Your task to perform on an android device: uninstall "Adobe Express: Graphic Design" Image 0: 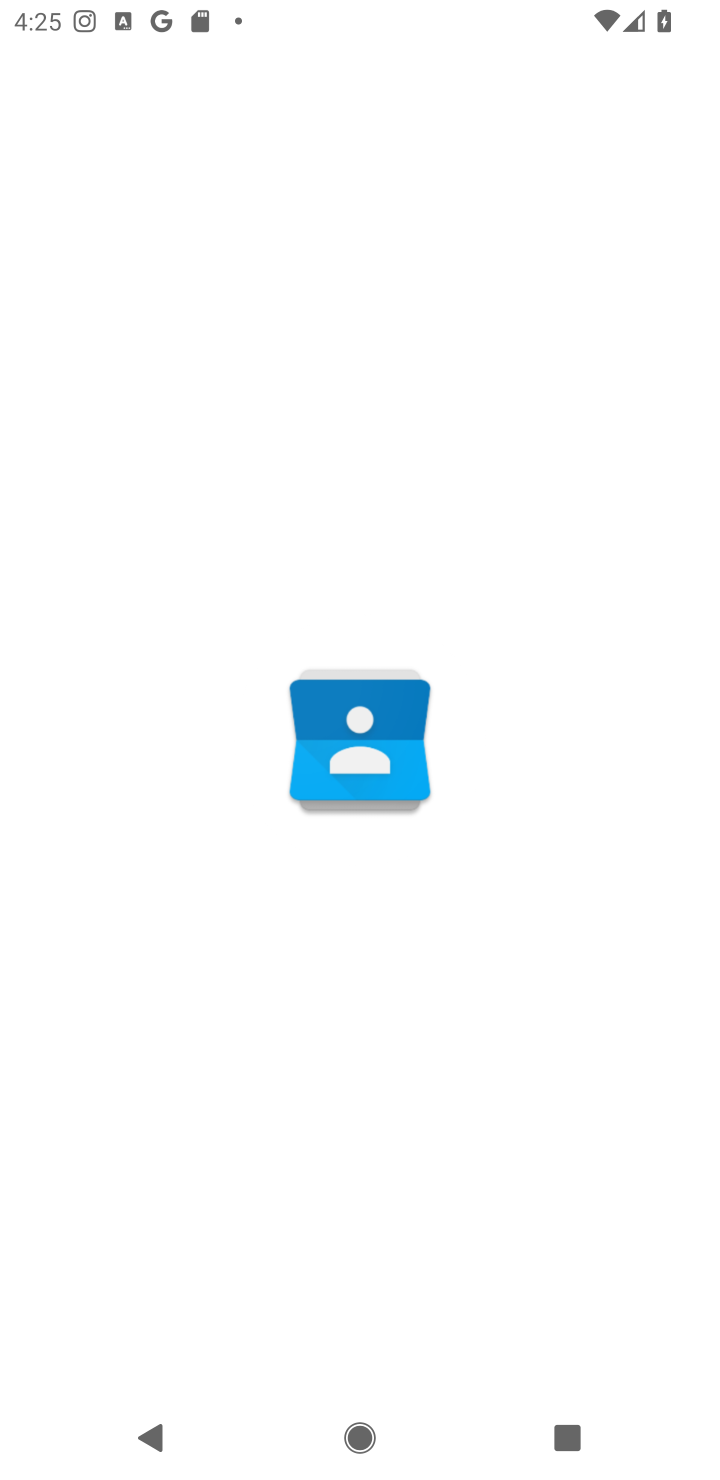
Step 0: press home button
Your task to perform on an android device: uninstall "Adobe Express: Graphic Design" Image 1: 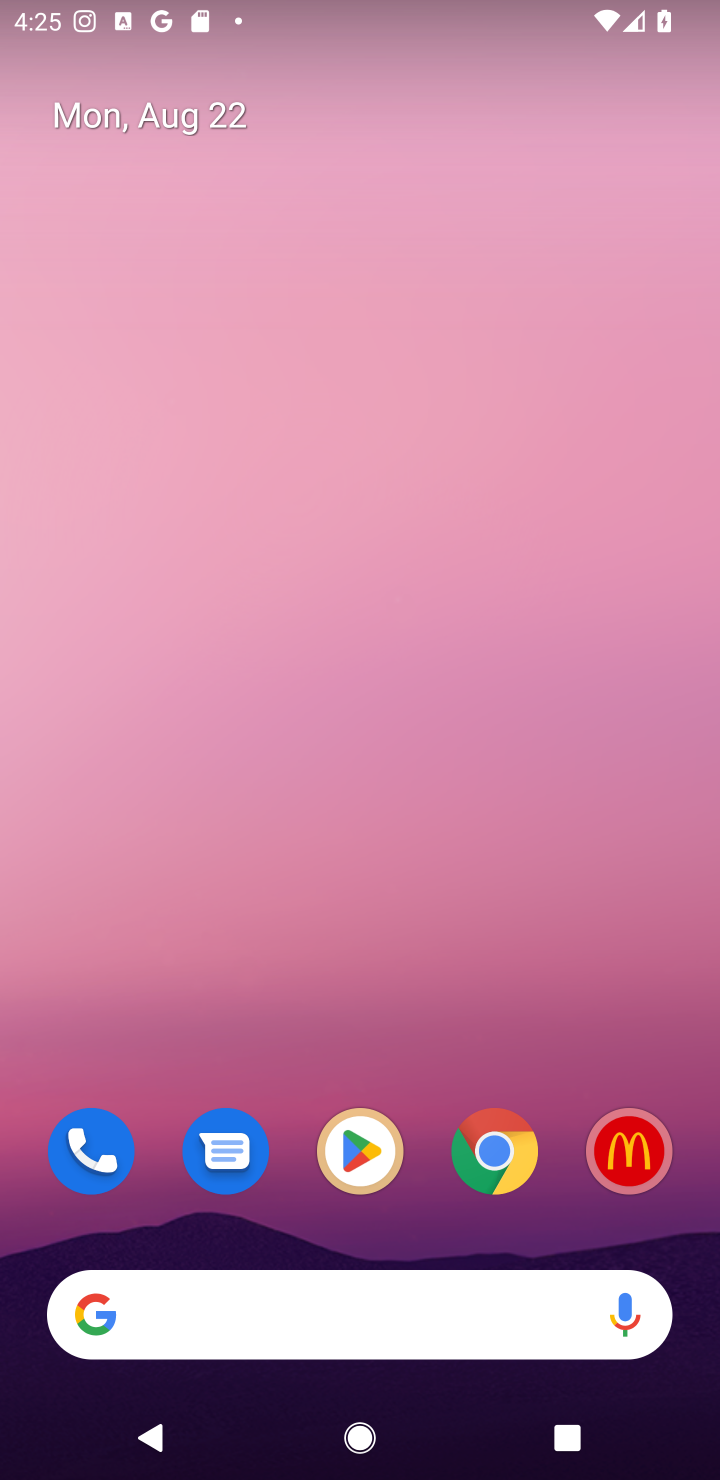
Step 1: click (348, 1160)
Your task to perform on an android device: uninstall "Adobe Express: Graphic Design" Image 2: 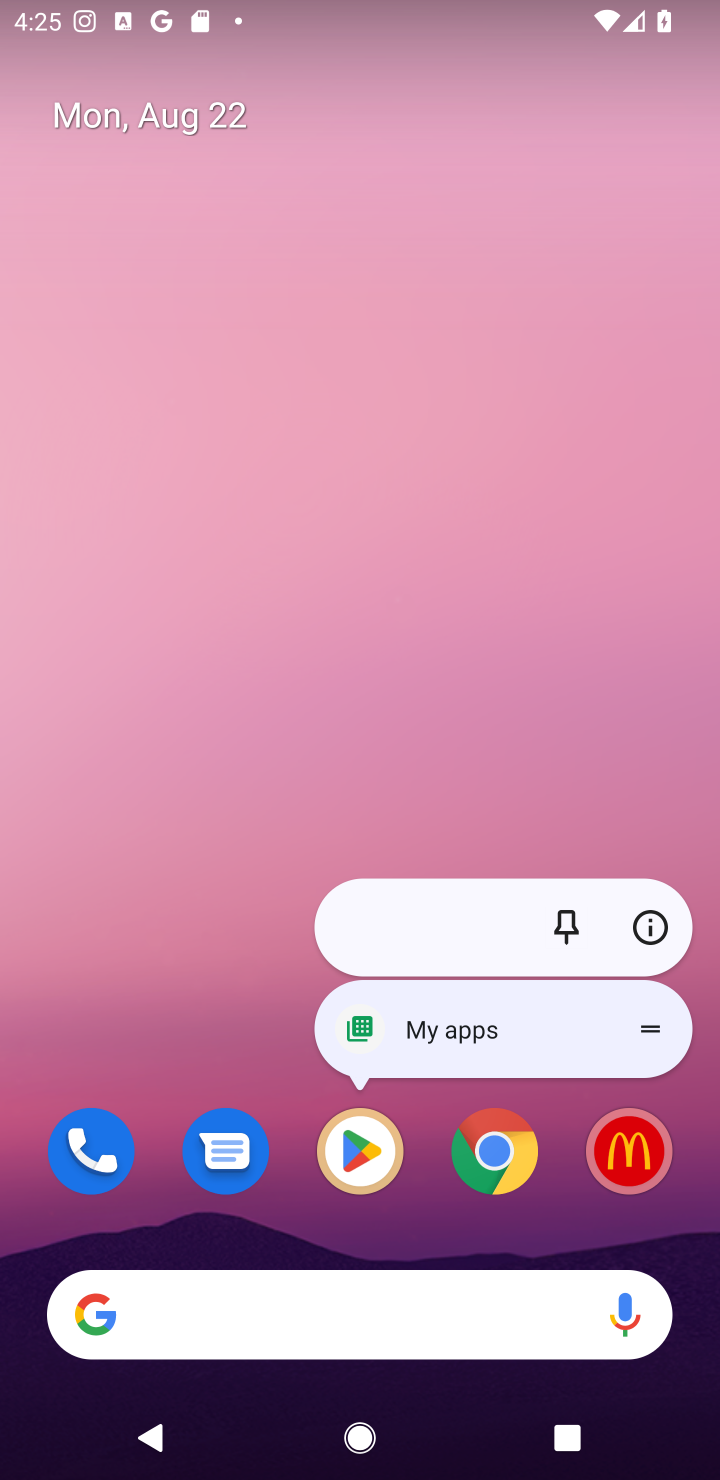
Step 2: click (344, 1158)
Your task to perform on an android device: uninstall "Adobe Express: Graphic Design" Image 3: 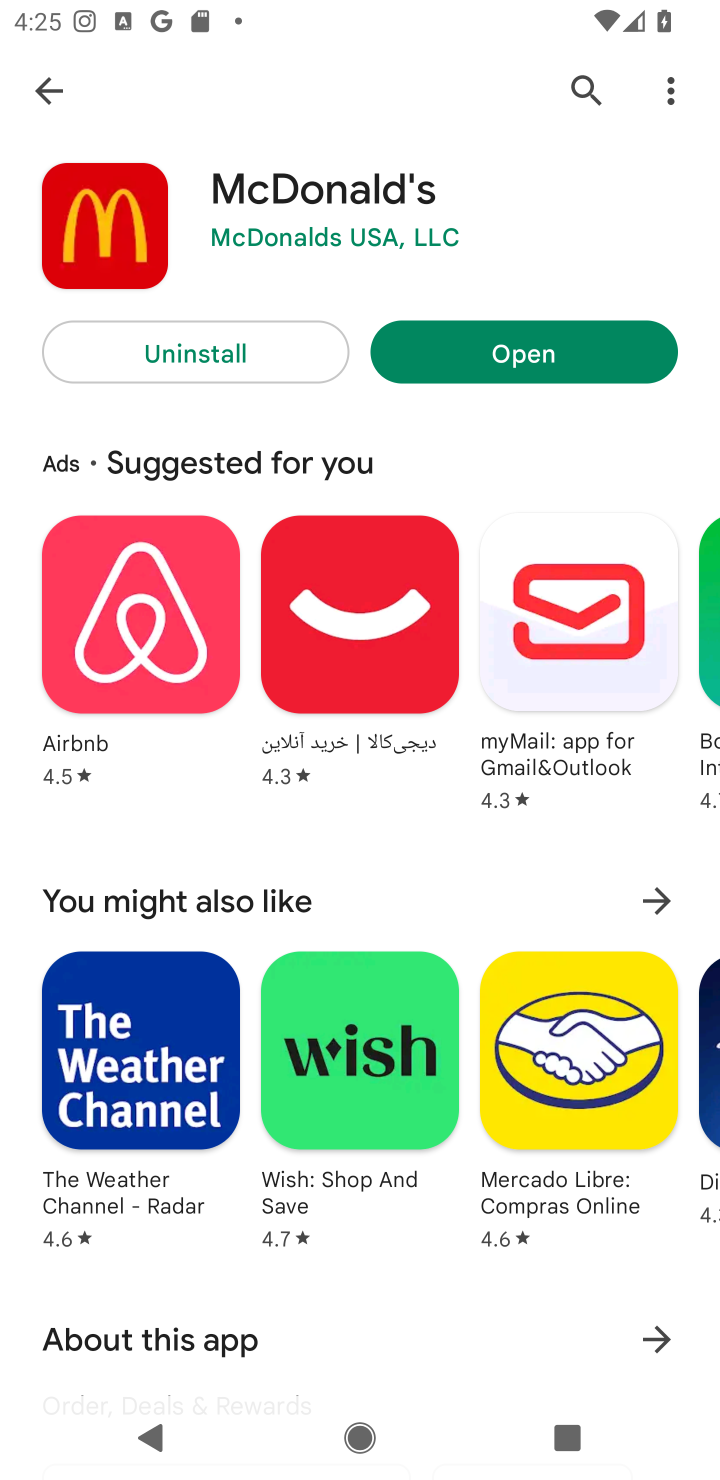
Step 3: click (580, 86)
Your task to perform on an android device: uninstall "Adobe Express: Graphic Design" Image 4: 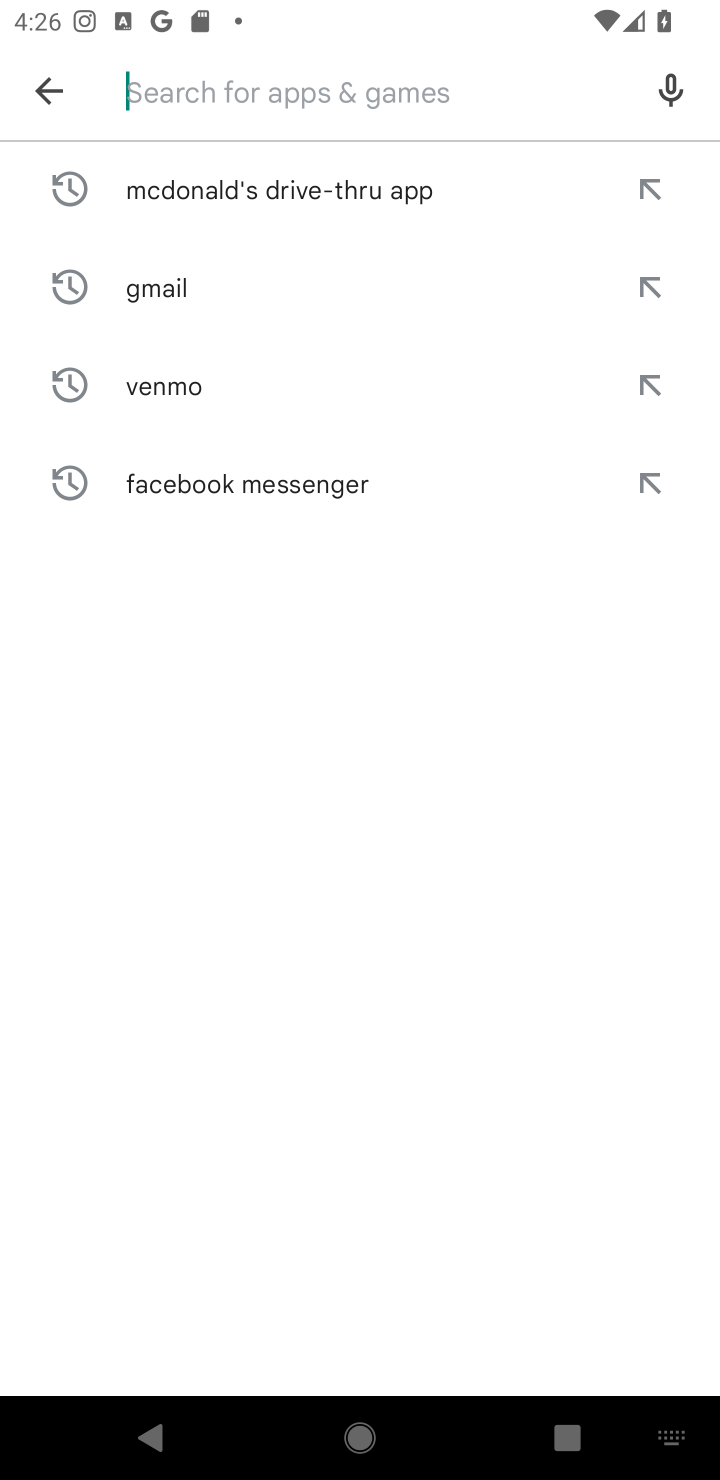
Step 4: type "Adobe Express: Graphic Design"
Your task to perform on an android device: uninstall "Adobe Express: Graphic Design" Image 5: 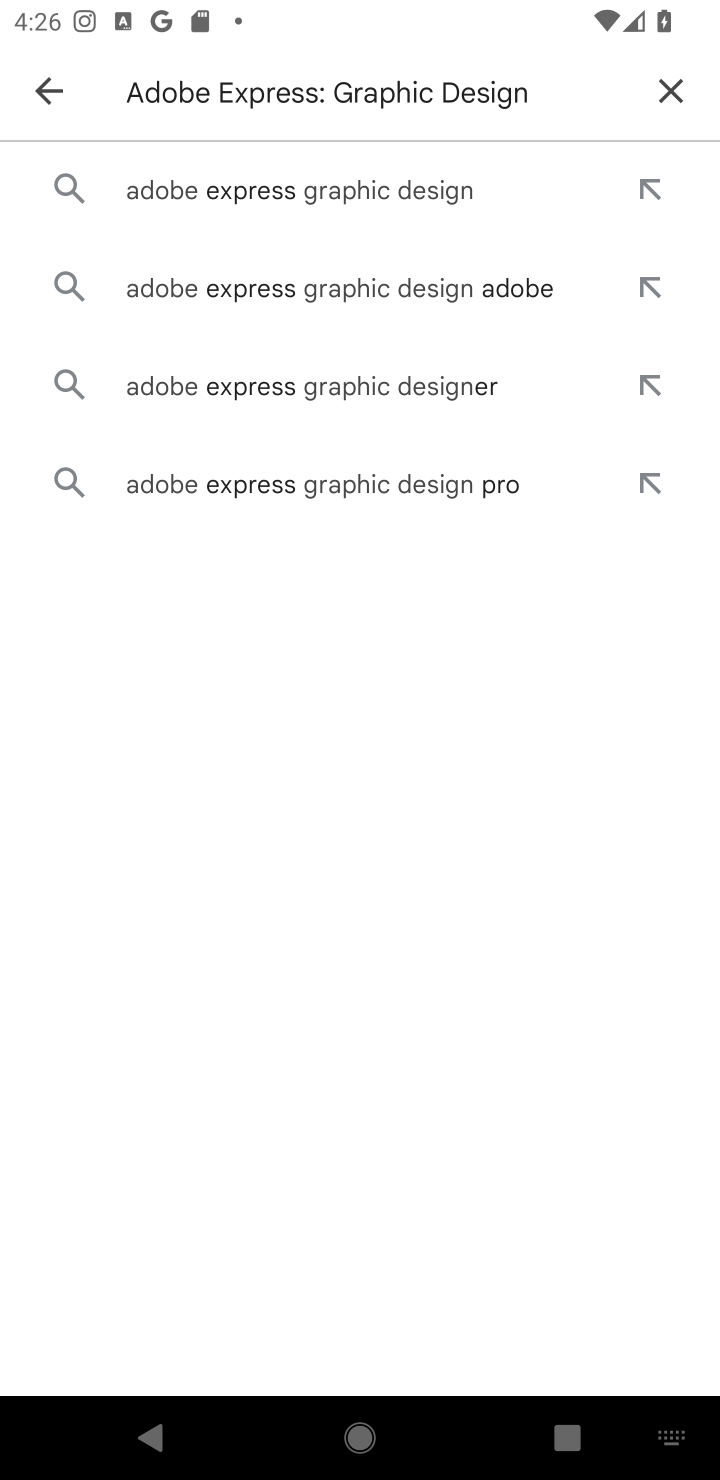
Step 5: click (442, 189)
Your task to perform on an android device: uninstall "Adobe Express: Graphic Design" Image 6: 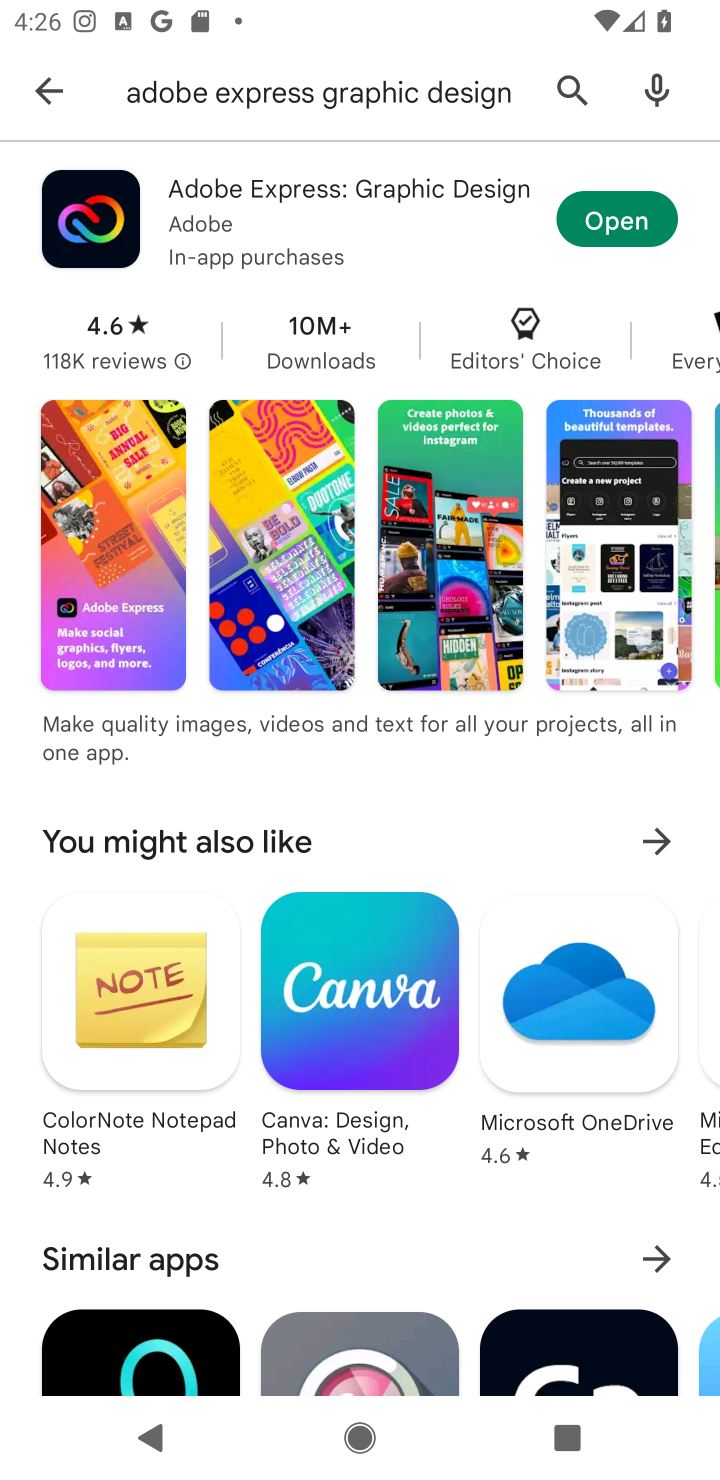
Step 6: click (185, 203)
Your task to perform on an android device: uninstall "Adobe Express: Graphic Design" Image 7: 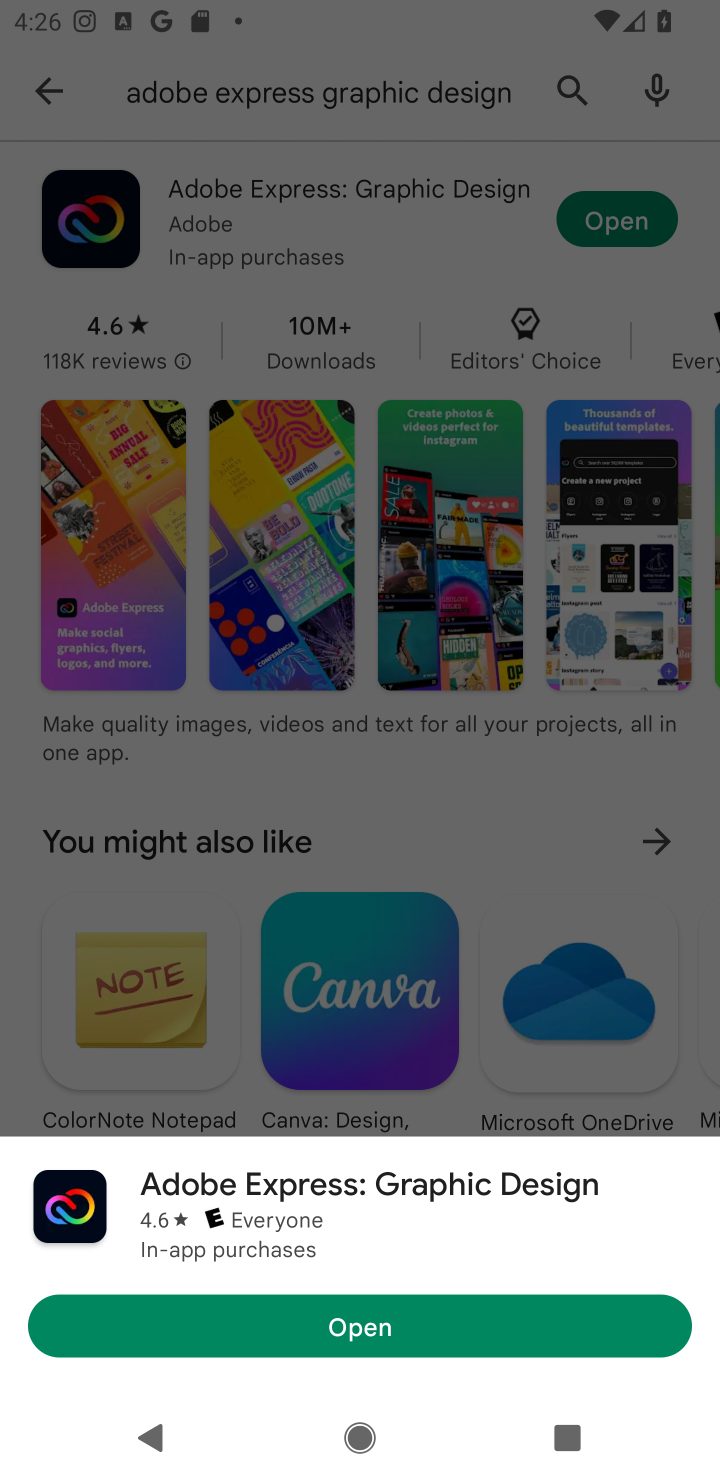
Step 7: click (224, 172)
Your task to perform on an android device: uninstall "Adobe Express: Graphic Design" Image 8: 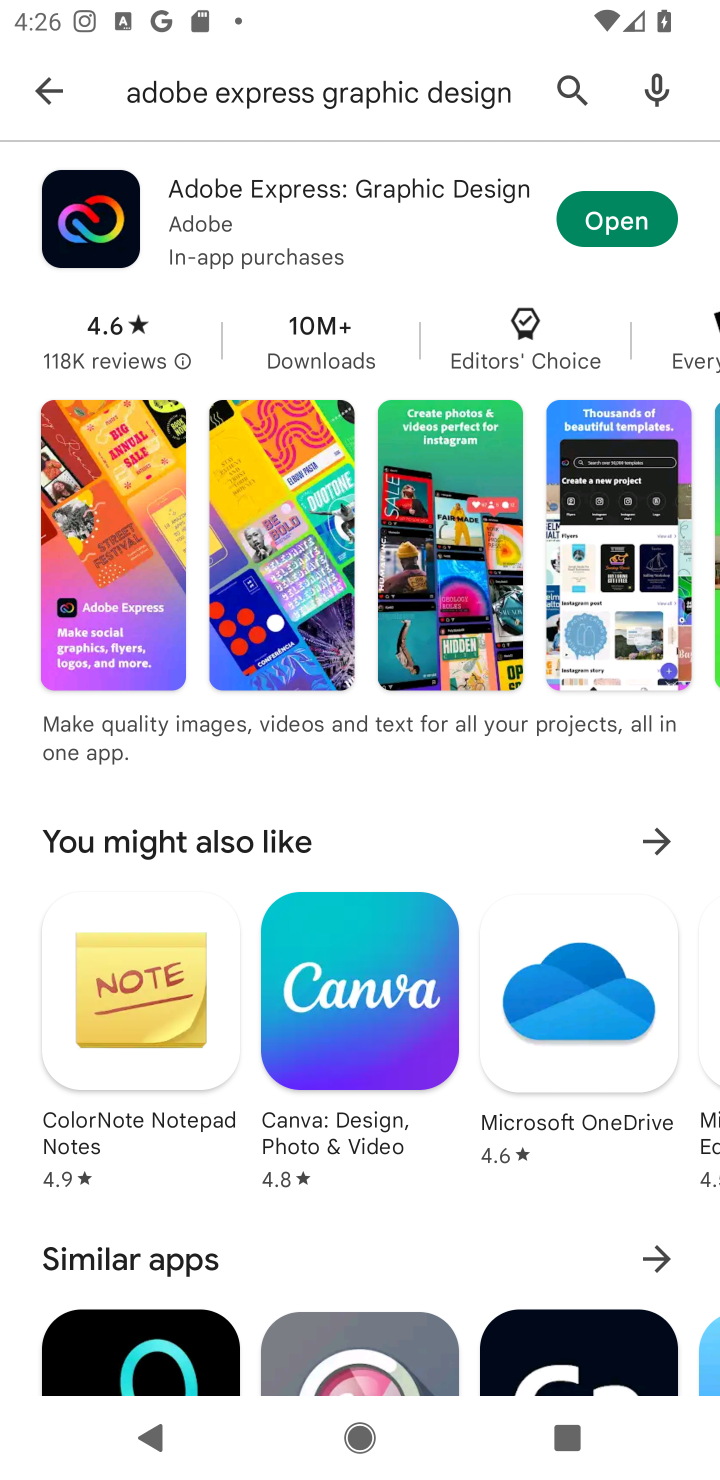
Step 8: click (208, 213)
Your task to perform on an android device: uninstall "Adobe Express: Graphic Design" Image 9: 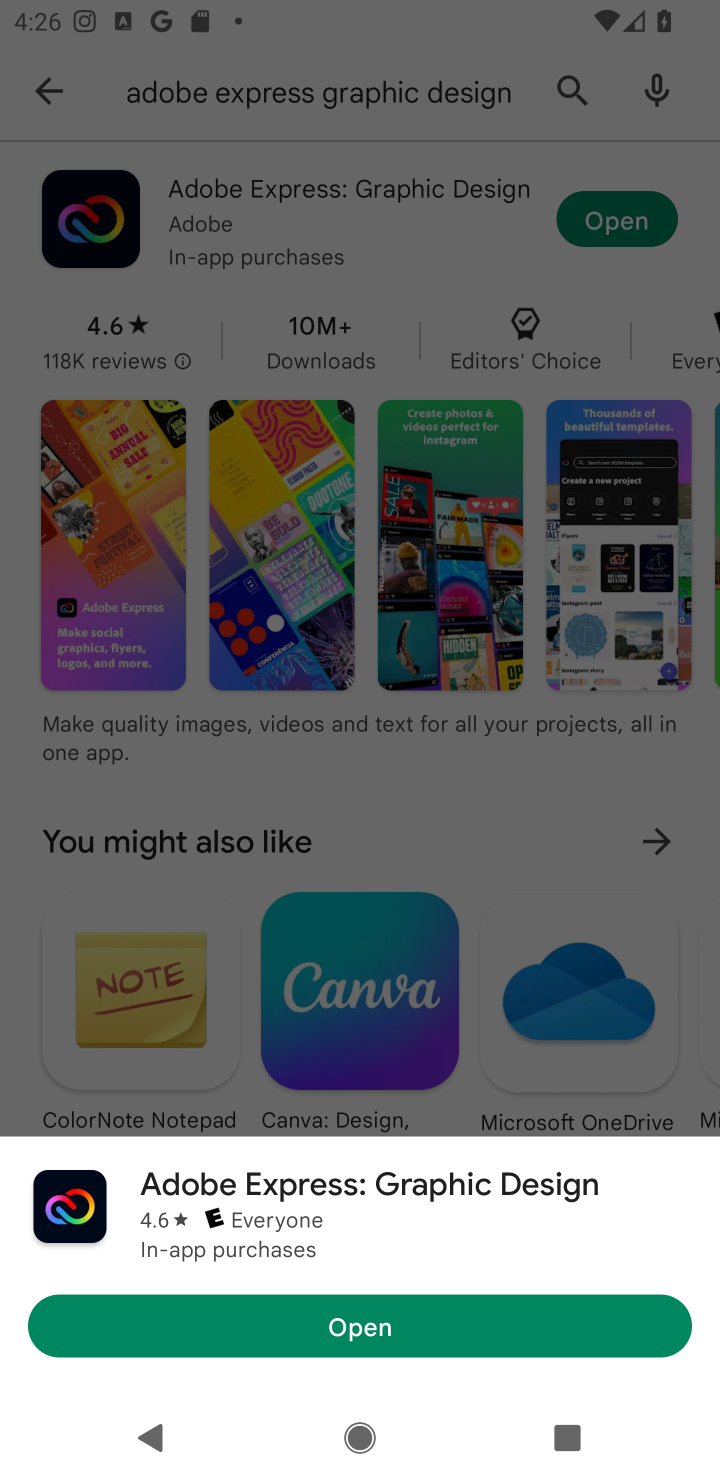
Step 9: click (210, 220)
Your task to perform on an android device: uninstall "Adobe Express: Graphic Design" Image 10: 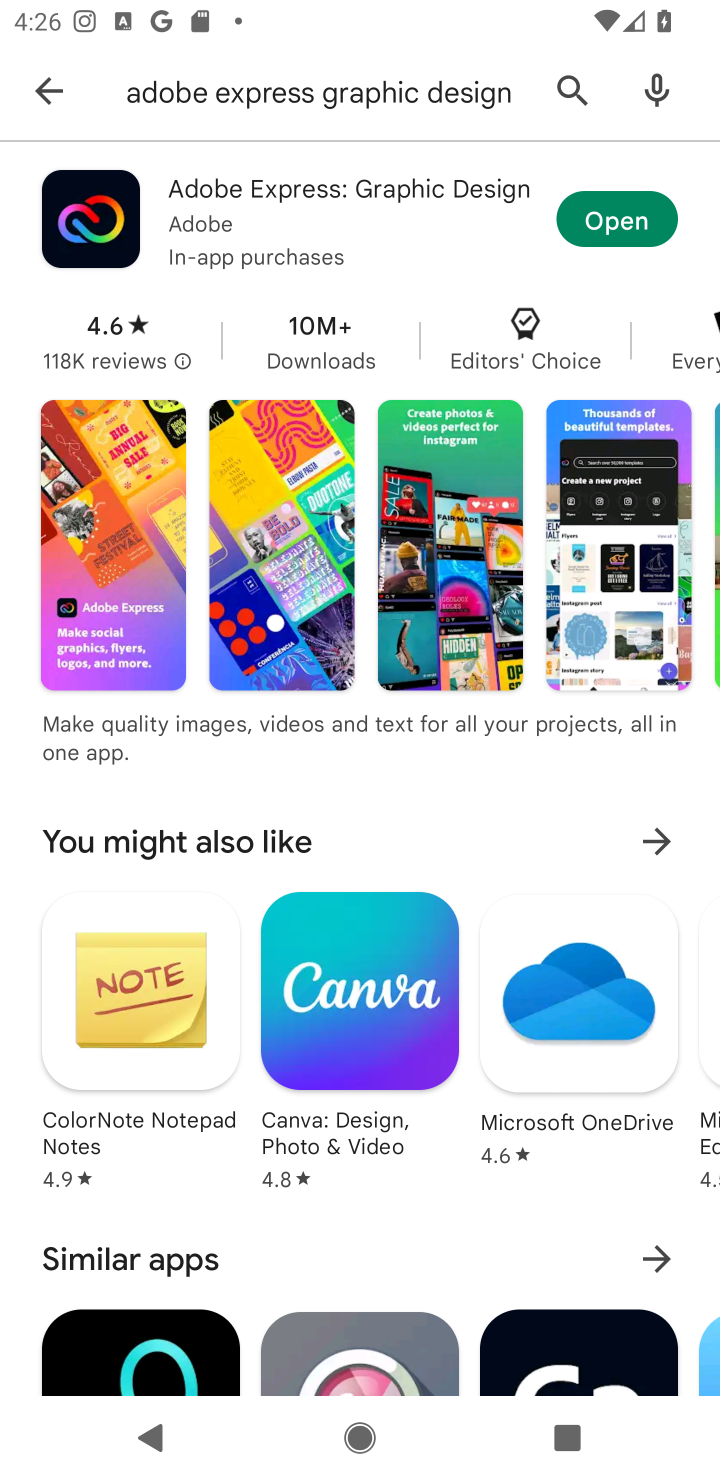
Step 10: click (80, 219)
Your task to perform on an android device: uninstall "Adobe Express: Graphic Design" Image 11: 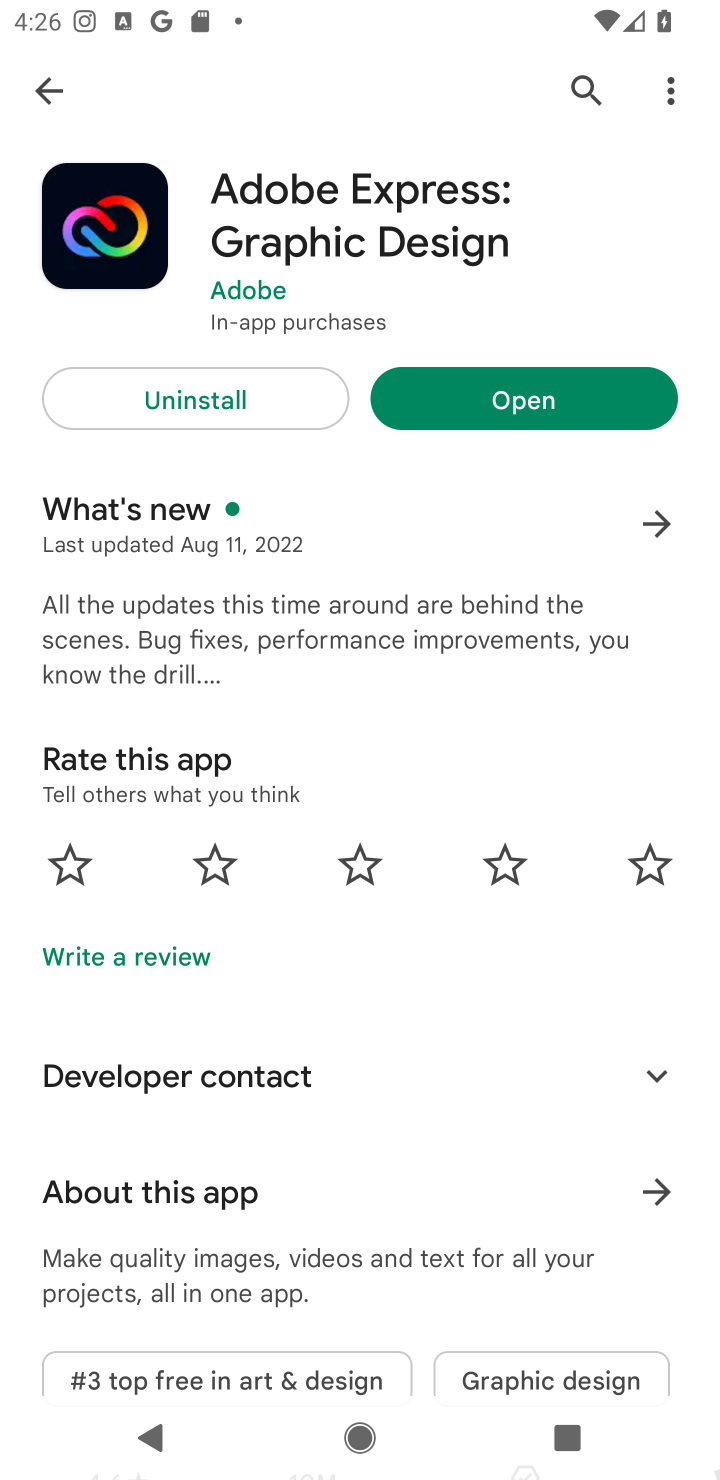
Step 11: click (183, 394)
Your task to perform on an android device: uninstall "Adobe Express: Graphic Design" Image 12: 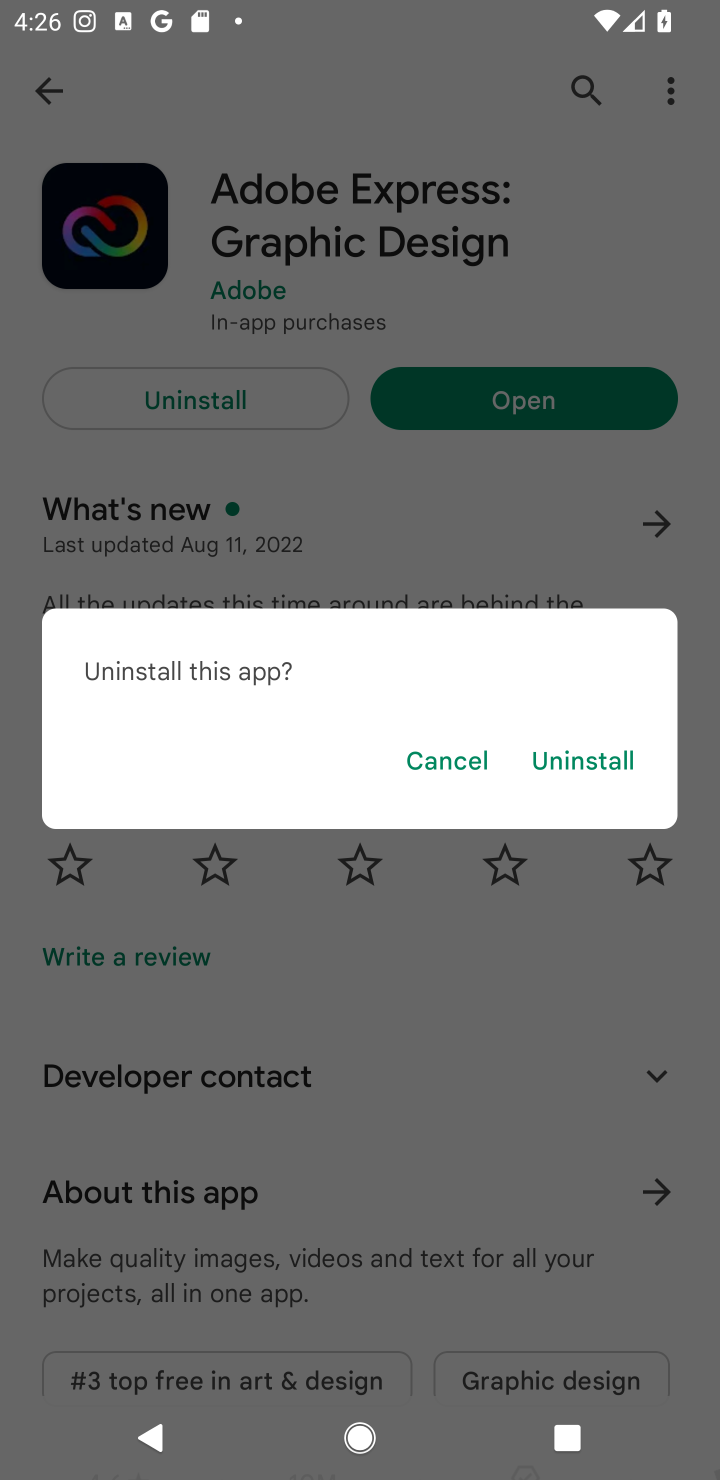
Step 12: click (601, 759)
Your task to perform on an android device: uninstall "Adobe Express: Graphic Design" Image 13: 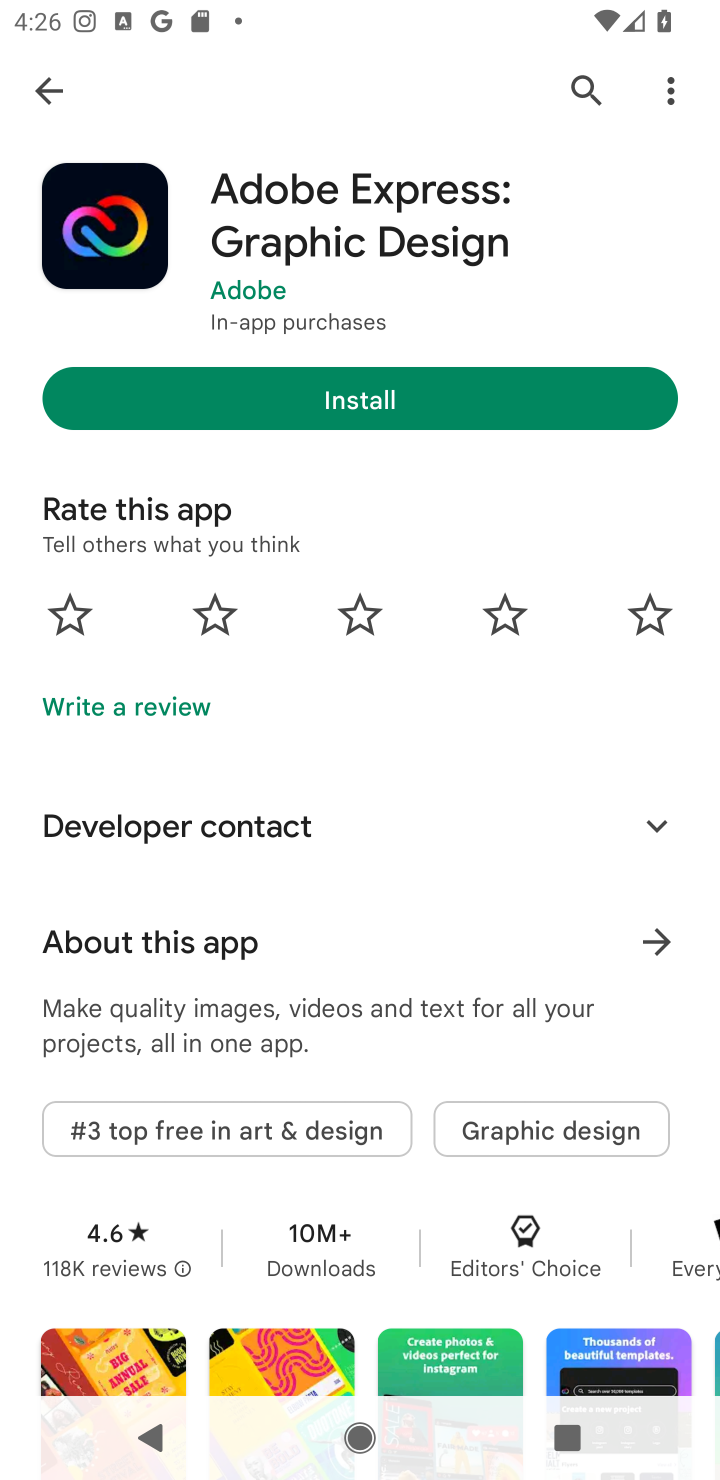
Step 13: task complete